Your task to perform on an android device: Open ESPN.com Image 0: 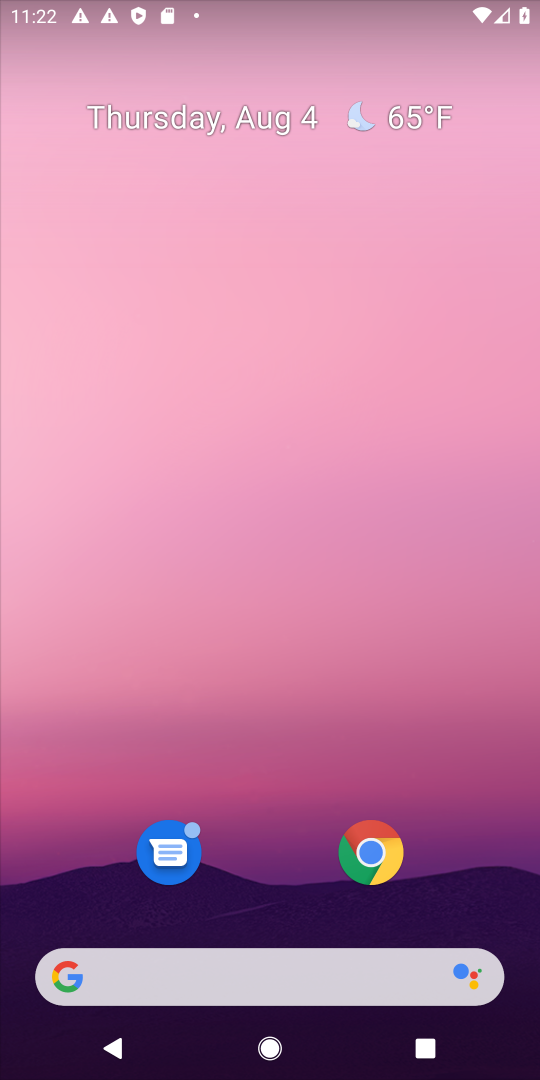
Step 0: click (361, 845)
Your task to perform on an android device: Open ESPN.com Image 1: 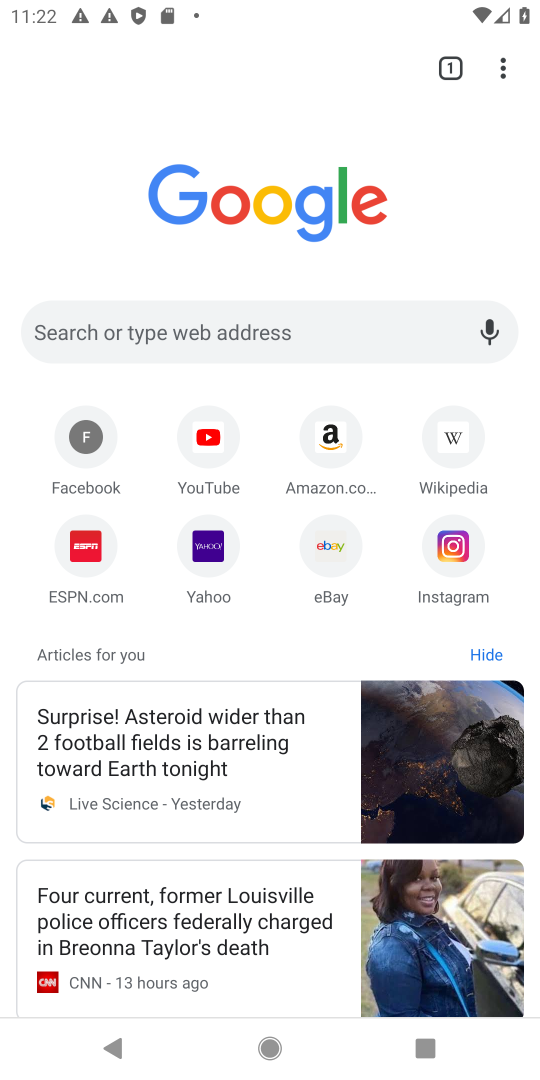
Step 1: click (268, 337)
Your task to perform on an android device: Open ESPN.com Image 2: 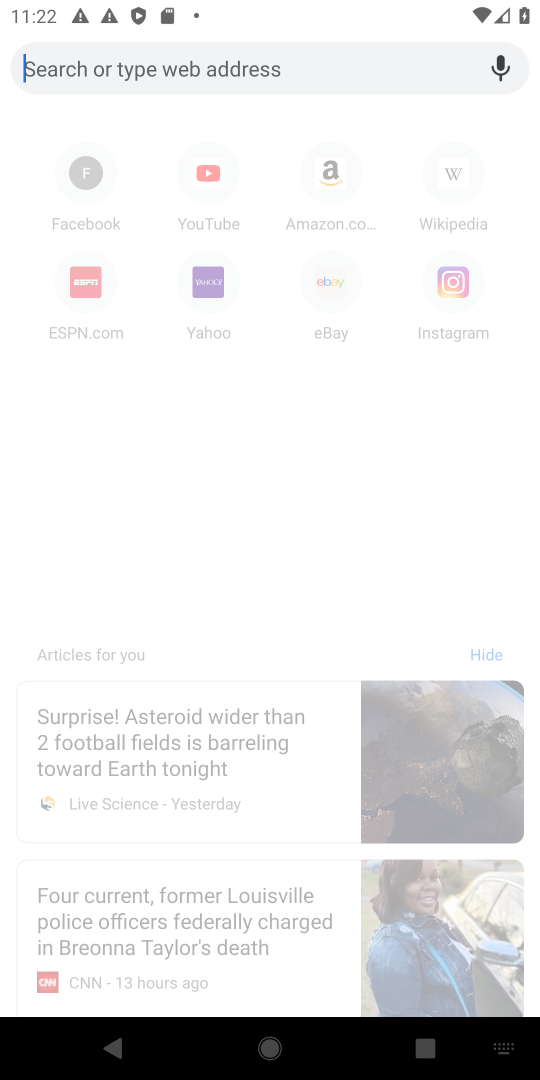
Step 2: type "ESPN.com"
Your task to perform on an android device: Open ESPN.com Image 3: 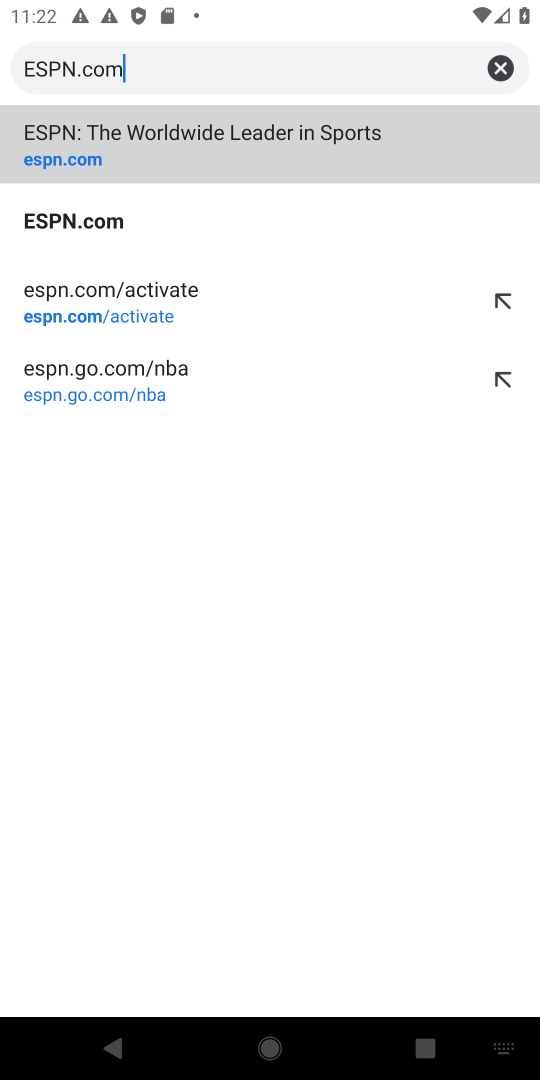
Step 3: click (49, 209)
Your task to perform on an android device: Open ESPN.com Image 4: 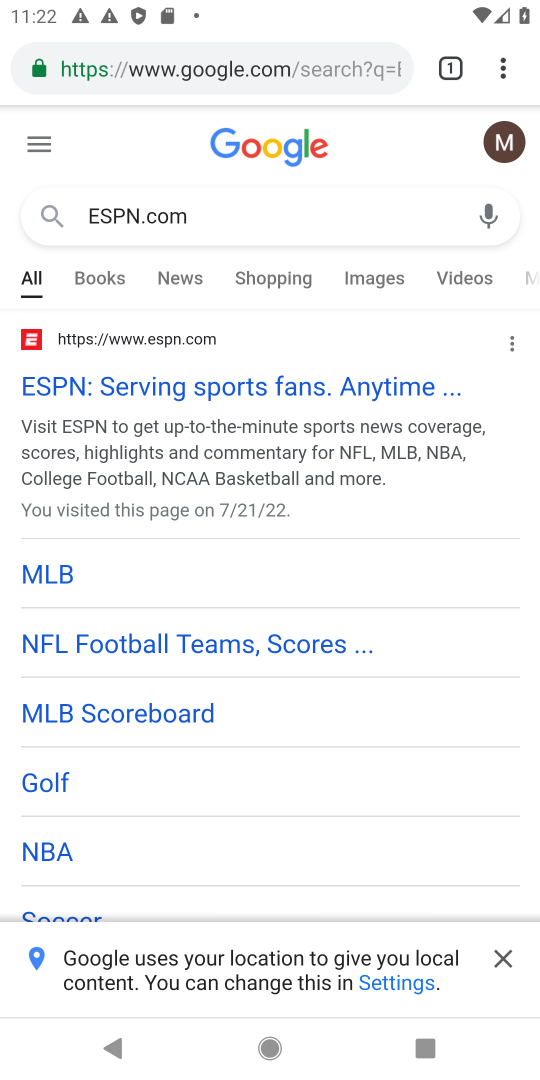
Step 4: task complete